Your task to perform on an android device: What's on my calendar today? Image 0: 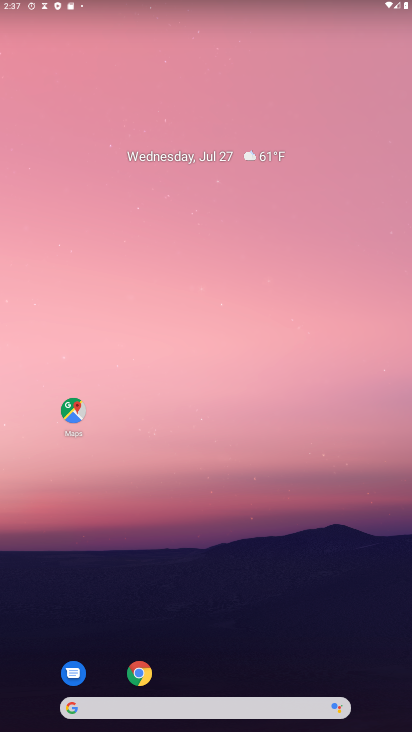
Step 0: drag from (77, 635) to (311, 19)
Your task to perform on an android device: What's on my calendar today? Image 1: 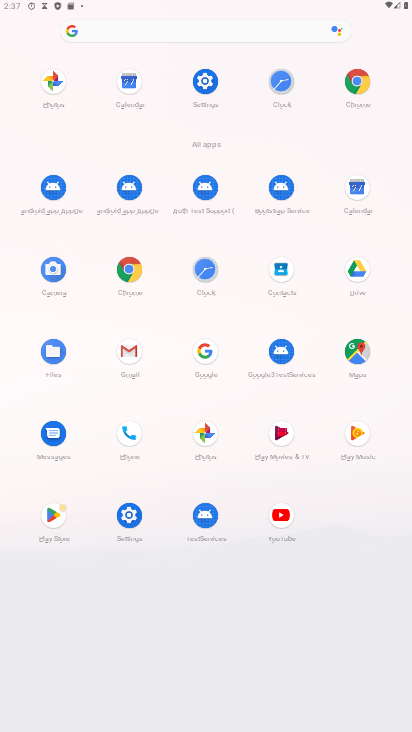
Step 1: click (342, 191)
Your task to perform on an android device: What's on my calendar today? Image 2: 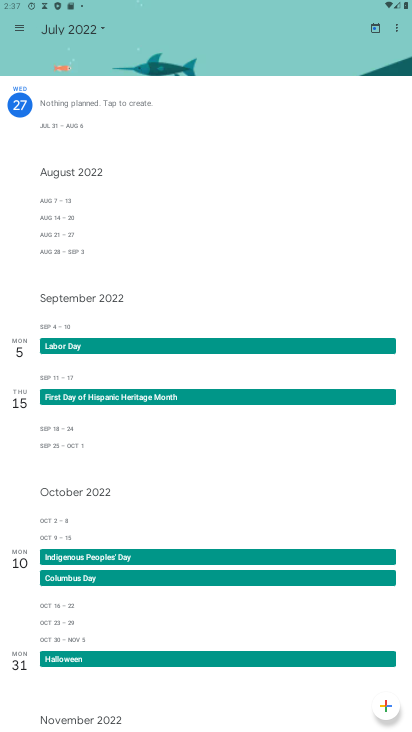
Step 2: click (98, 26)
Your task to perform on an android device: What's on my calendar today? Image 3: 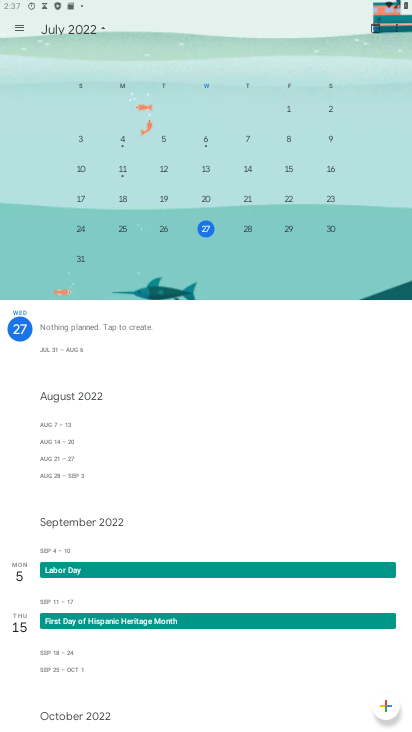
Step 3: task complete